Your task to perform on an android device: turn on improve location accuracy Image 0: 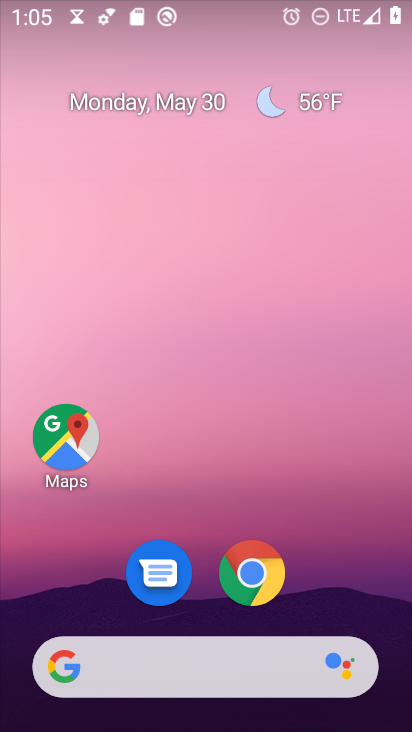
Step 0: drag from (301, 659) to (309, 14)
Your task to perform on an android device: turn on improve location accuracy Image 1: 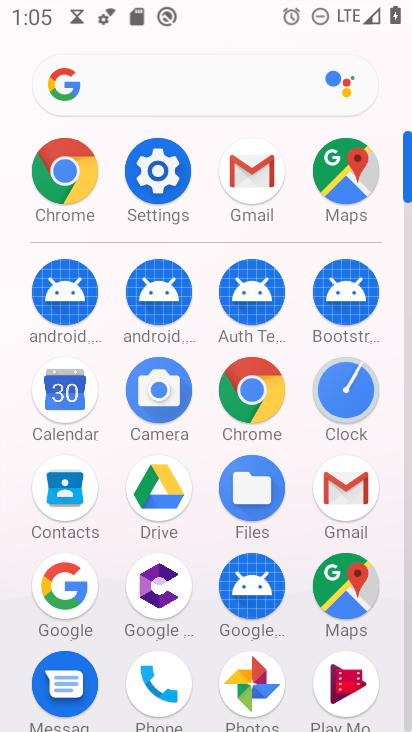
Step 1: click (171, 182)
Your task to perform on an android device: turn on improve location accuracy Image 2: 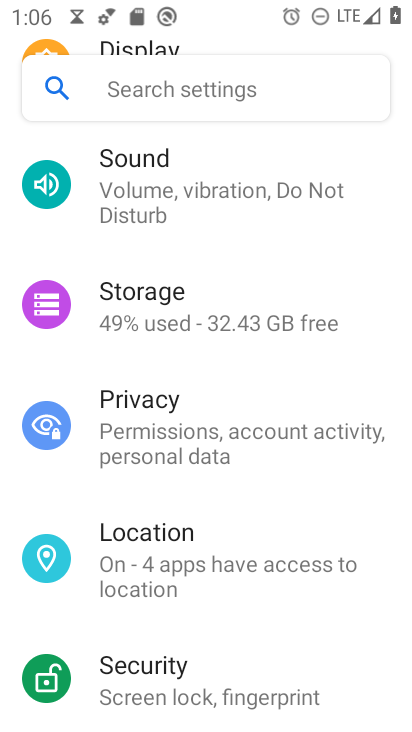
Step 2: click (249, 569)
Your task to perform on an android device: turn on improve location accuracy Image 3: 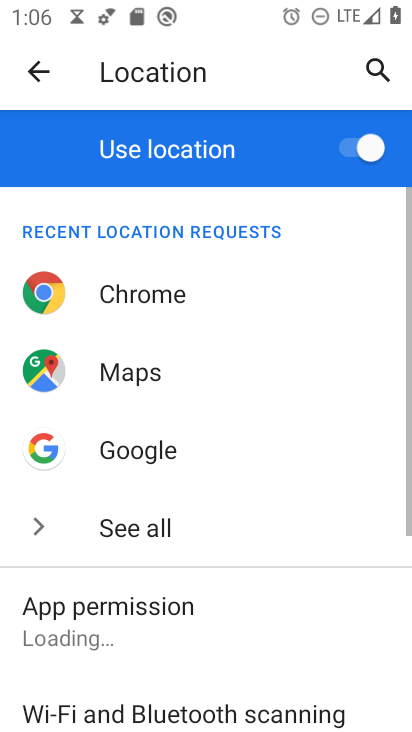
Step 3: drag from (224, 629) to (318, 11)
Your task to perform on an android device: turn on improve location accuracy Image 4: 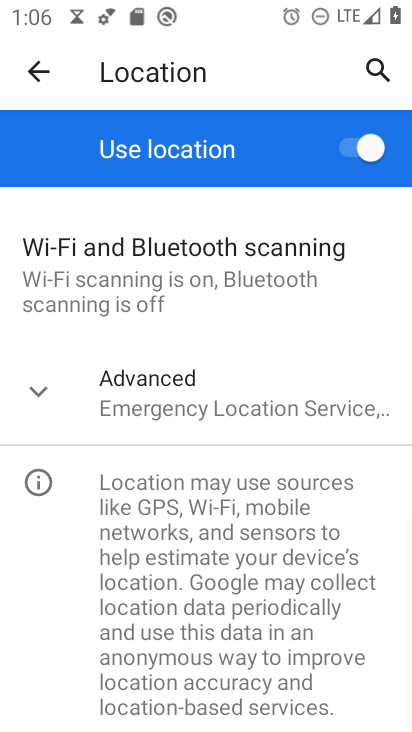
Step 4: click (247, 389)
Your task to perform on an android device: turn on improve location accuracy Image 5: 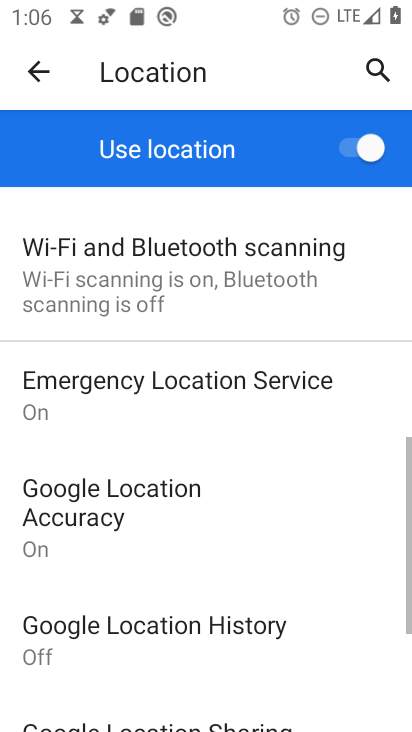
Step 5: drag from (247, 655) to (275, 403)
Your task to perform on an android device: turn on improve location accuracy Image 6: 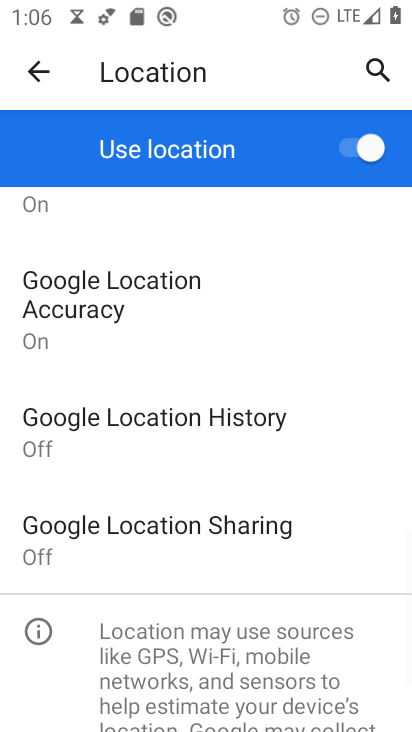
Step 6: click (196, 295)
Your task to perform on an android device: turn on improve location accuracy Image 7: 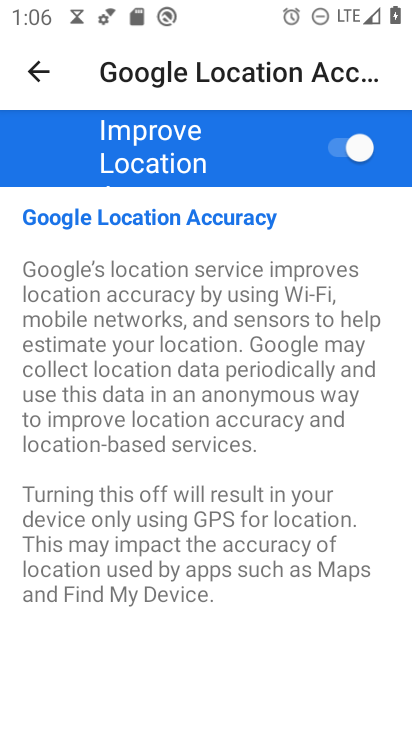
Step 7: task complete